Your task to perform on an android device: Go to CNN.com Image 0: 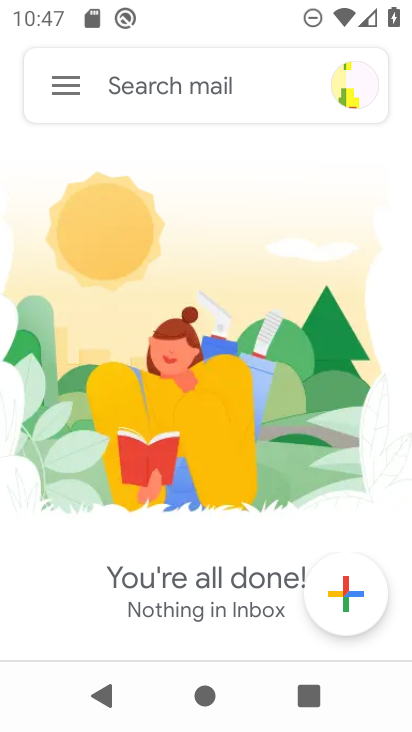
Step 0: press home button
Your task to perform on an android device: Go to CNN.com Image 1: 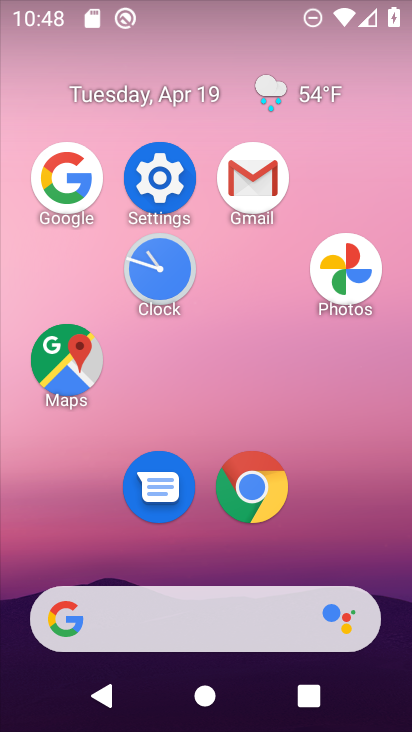
Step 1: click (251, 494)
Your task to perform on an android device: Go to CNN.com Image 2: 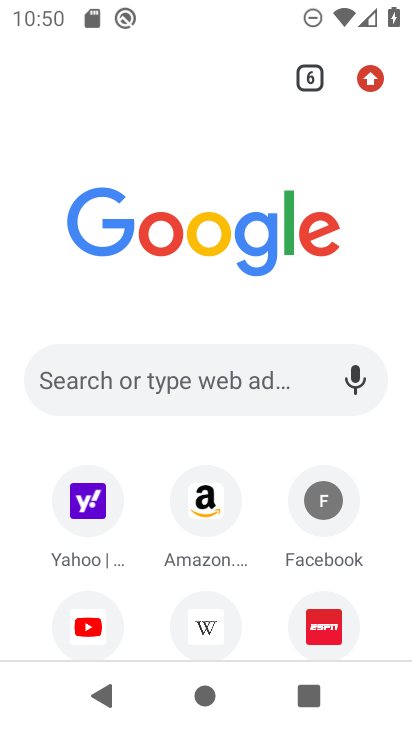
Step 2: click (228, 369)
Your task to perform on an android device: Go to CNN.com Image 3: 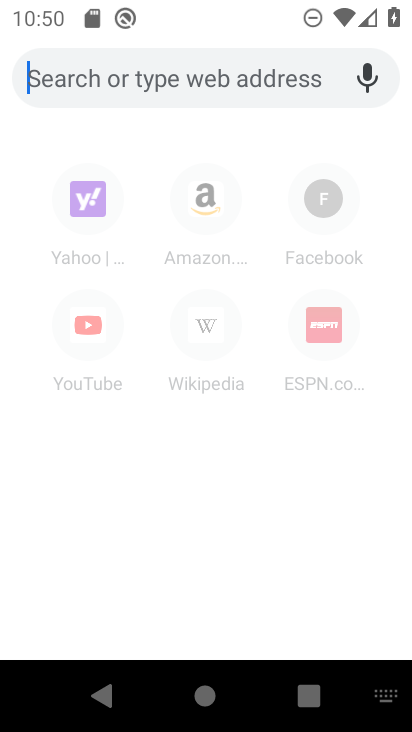
Step 3: type "cnn"
Your task to perform on an android device: Go to CNN.com Image 4: 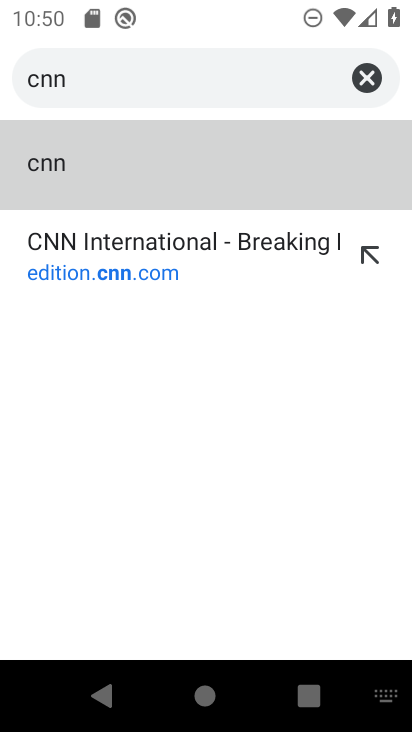
Step 4: click (86, 243)
Your task to perform on an android device: Go to CNN.com Image 5: 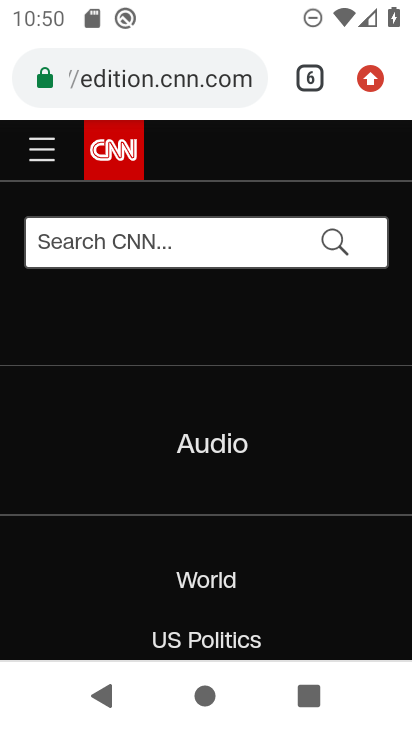
Step 5: task complete